Your task to perform on an android device: manage bookmarks in the chrome app Image 0: 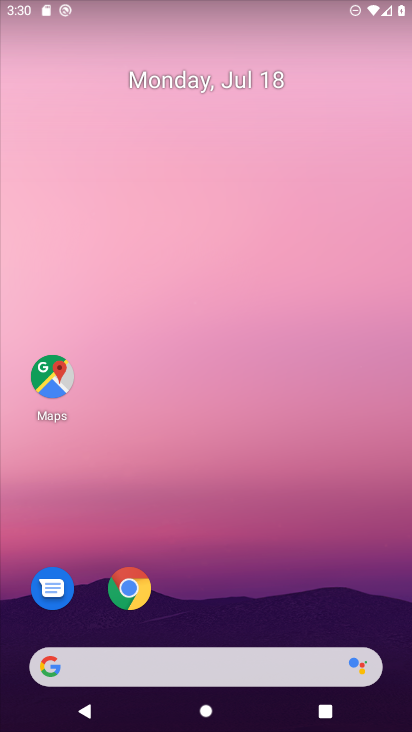
Step 0: press home button
Your task to perform on an android device: manage bookmarks in the chrome app Image 1: 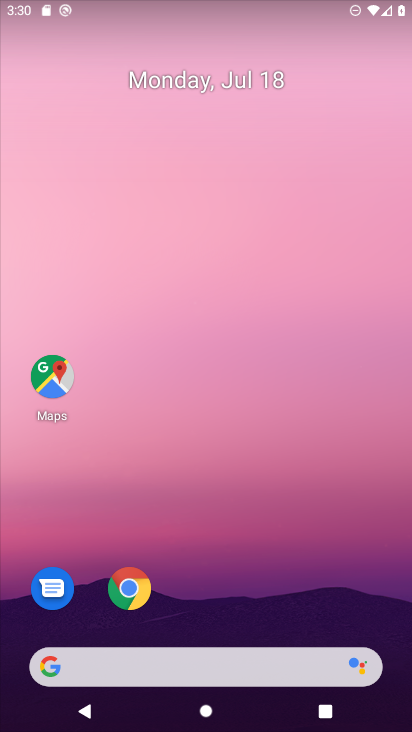
Step 1: click (127, 582)
Your task to perform on an android device: manage bookmarks in the chrome app Image 2: 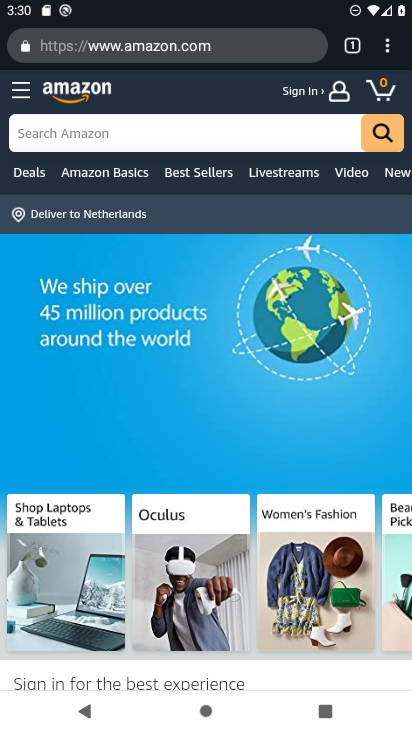
Step 2: click (388, 48)
Your task to perform on an android device: manage bookmarks in the chrome app Image 3: 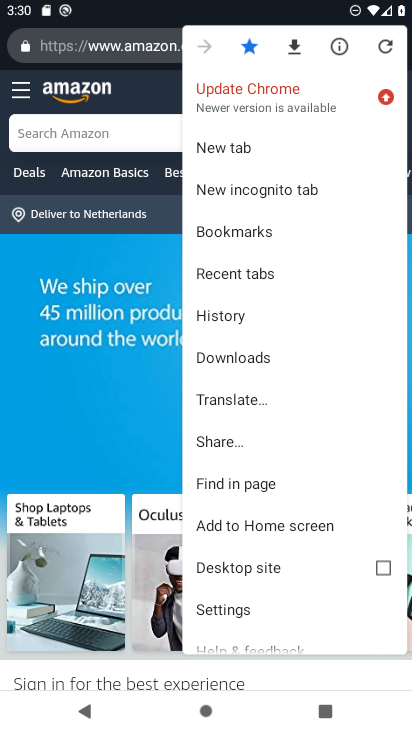
Step 3: click (279, 229)
Your task to perform on an android device: manage bookmarks in the chrome app Image 4: 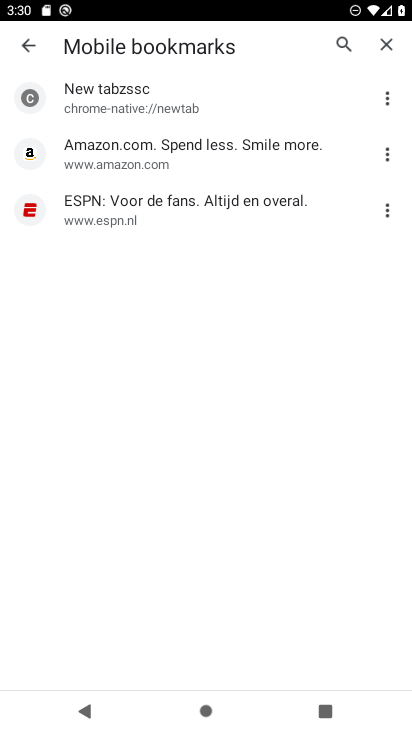
Step 4: click (383, 97)
Your task to perform on an android device: manage bookmarks in the chrome app Image 5: 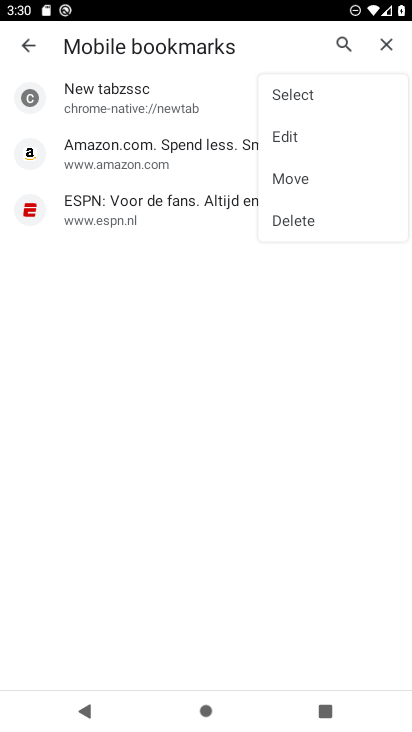
Step 5: click (303, 215)
Your task to perform on an android device: manage bookmarks in the chrome app Image 6: 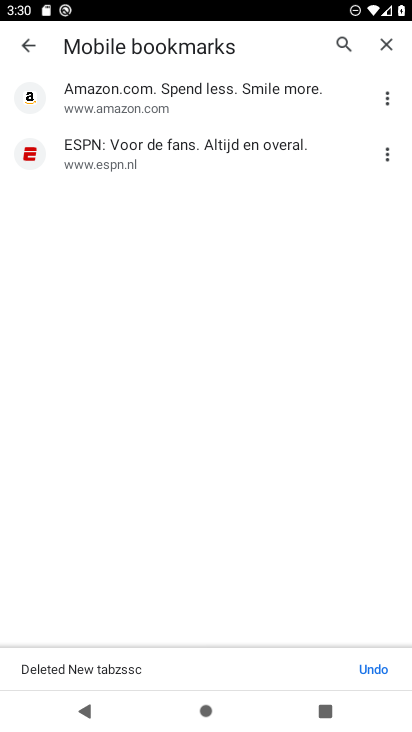
Step 6: task complete